Your task to perform on an android device: toggle sleep mode Image 0: 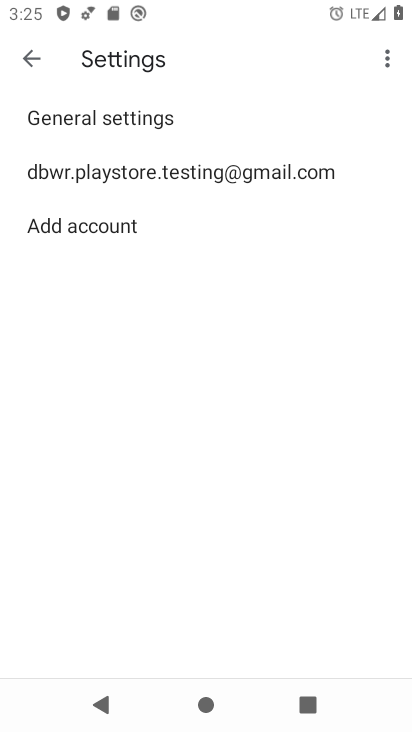
Step 0: press back button
Your task to perform on an android device: toggle sleep mode Image 1: 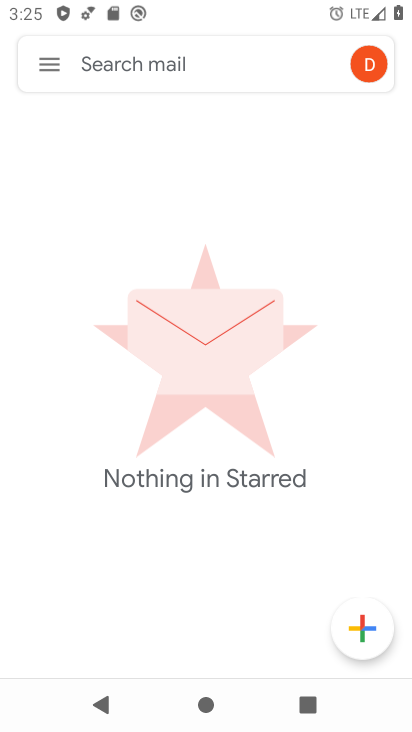
Step 1: press back button
Your task to perform on an android device: toggle sleep mode Image 2: 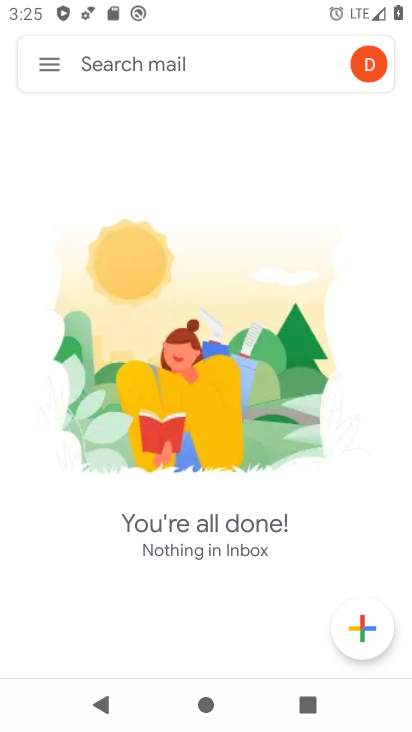
Step 2: press back button
Your task to perform on an android device: toggle sleep mode Image 3: 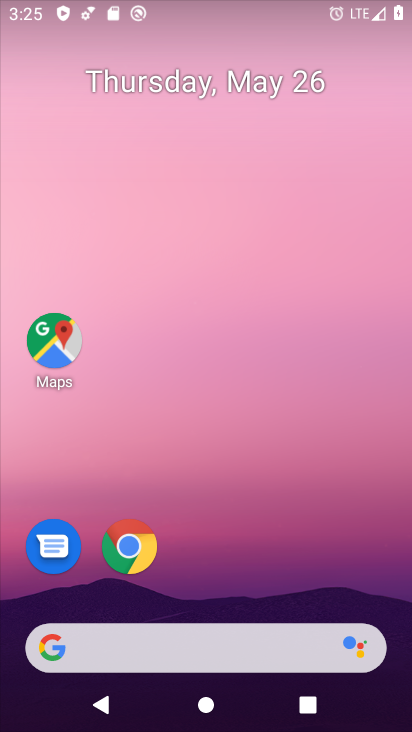
Step 3: drag from (250, 611) to (270, 106)
Your task to perform on an android device: toggle sleep mode Image 4: 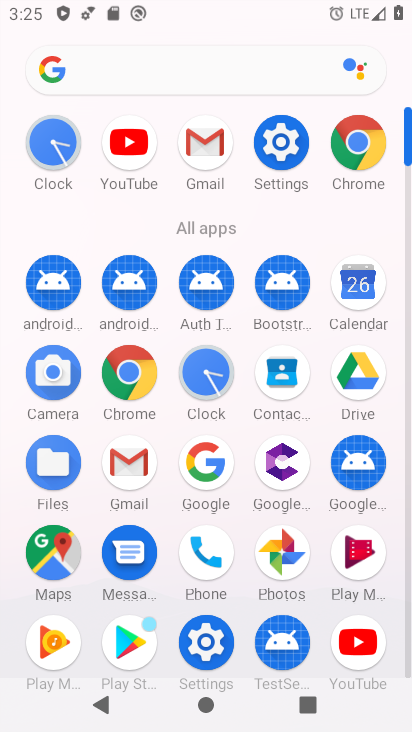
Step 4: click (271, 128)
Your task to perform on an android device: toggle sleep mode Image 5: 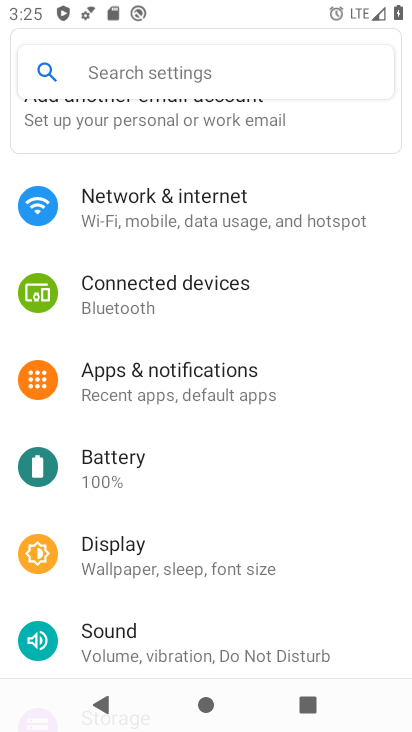
Step 5: click (114, 67)
Your task to perform on an android device: toggle sleep mode Image 6: 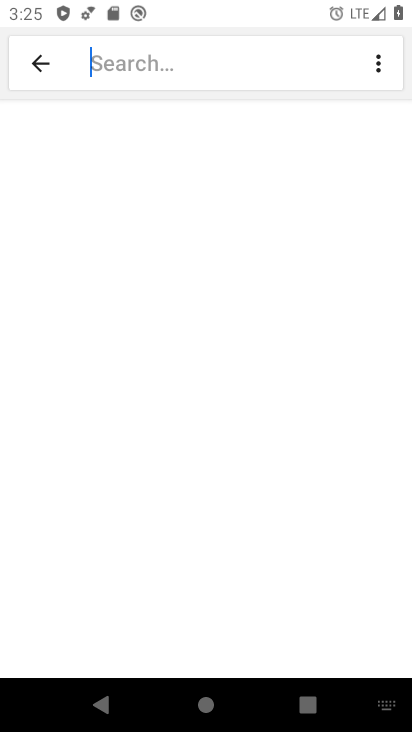
Step 6: type "sleep mode"
Your task to perform on an android device: toggle sleep mode Image 7: 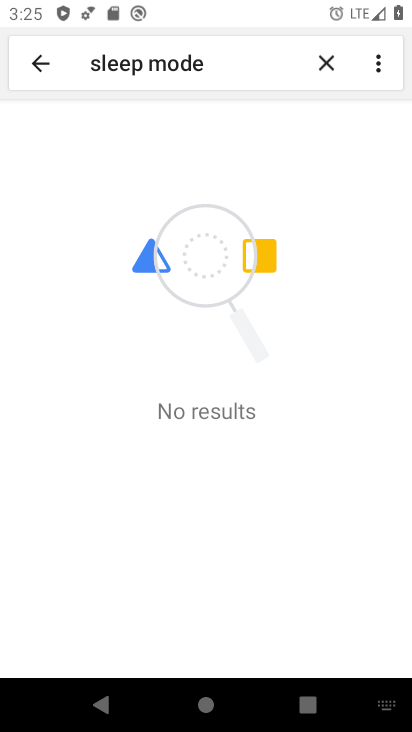
Step 7: task complete